Your task to perform on an android device: Search for vegetarian restaurants on Maps Image 0: 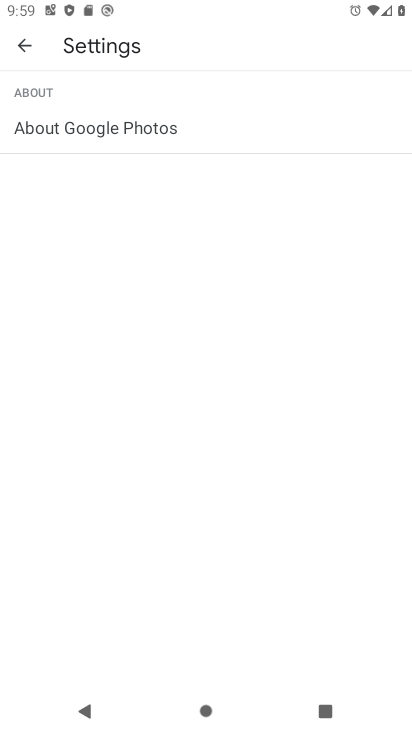
Step 0: press home button
Your task to perform on an android device: Search for vegetarian restaurants on Maps Image 1: 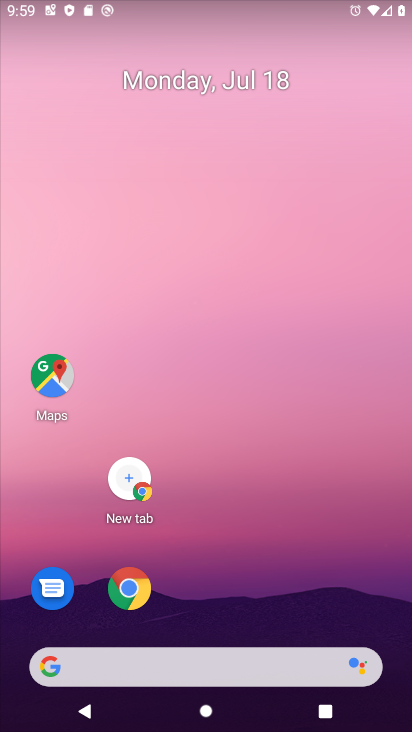
Step 1: click (35, 379)
Your task to perform on an android device: Search for vegetarian restaurants on Maps Image 2: 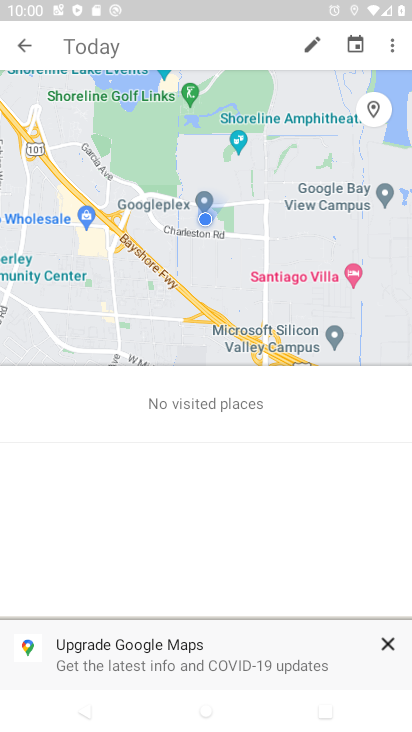
Step 2: click (23, 48)
Your task to perform on an android device: Search for vegetarian restaurants on Maps Image 3: 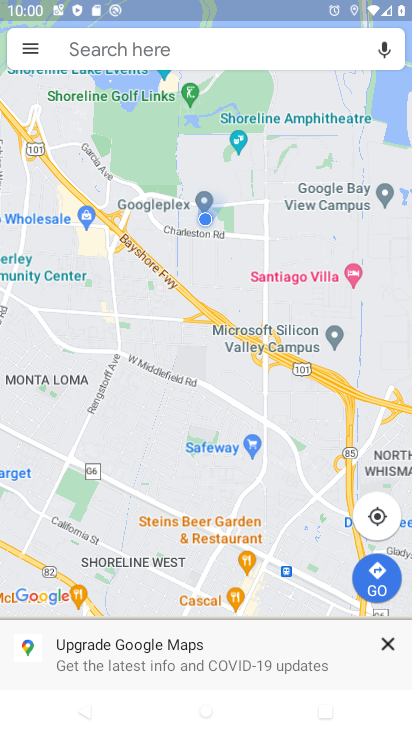
Step 3: click (215, 47)
Your task to perform on an android device: Search for vegetarian restaurants on Maps Image 4: 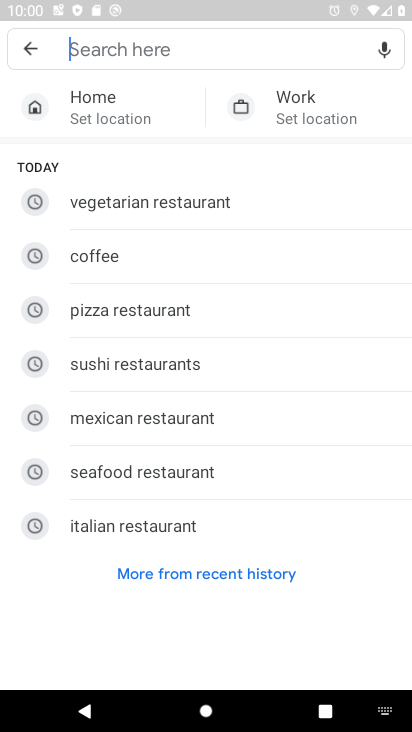
Step 4: click (129, 212)
Your task to perform on an android device: Search for vegetarian restaurants on Maps Image 5: 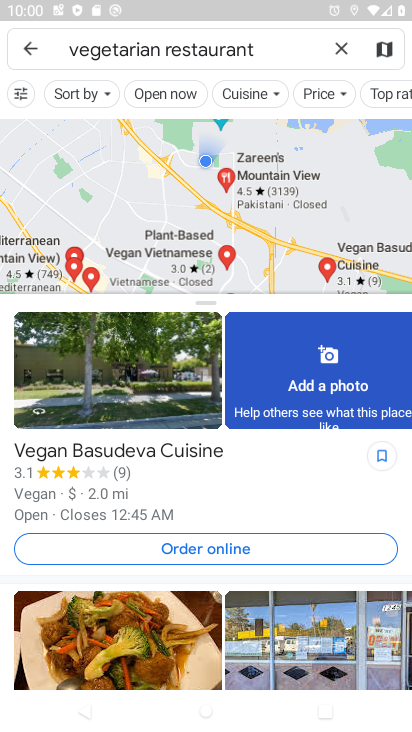
Step 5: task complete